Your task to perform on an android device: turn off smart reply in the gmail app Image 0: 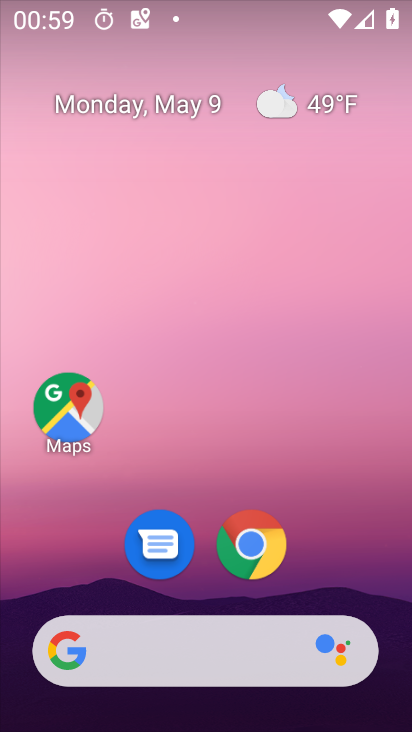
Step 0: drag from (292, 587) to (283, 30)
Your task to perform on an android device: turn off smart reply in the gmail app Image 1: 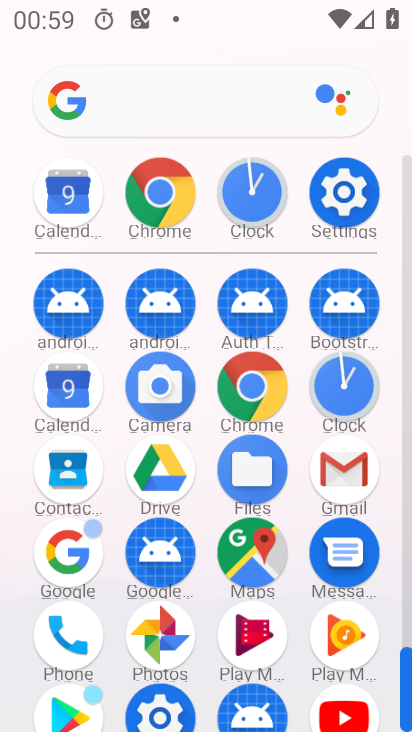
Step 1: click (344, 458)
Your task to perform on an android device: turn off smart reply in the gmail app Image 2: 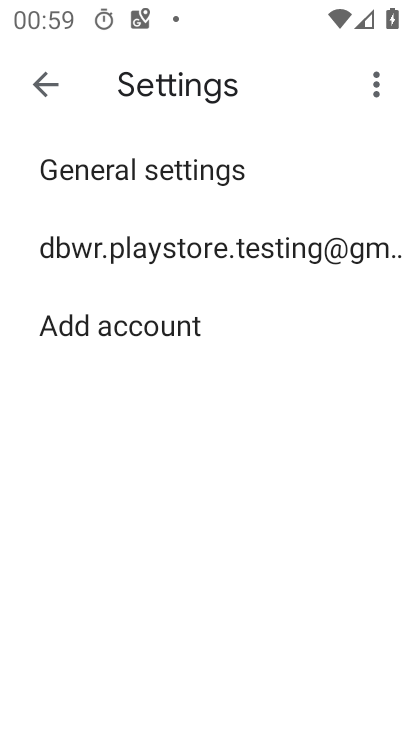
Step 2: click (241, 246)
Your task to perform on an android device: turn off smart reply in the gmail app Image 3: 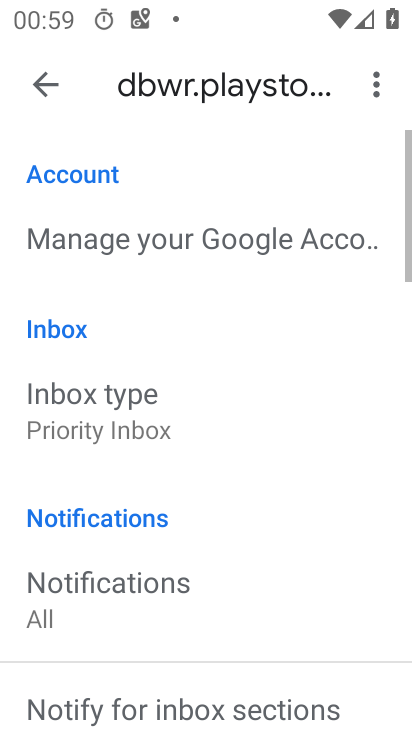
Step 3: drag from (246, 654) to (211, 136)
Your task to perform on an android device: turn off smart reply in the gmail app Image 4: 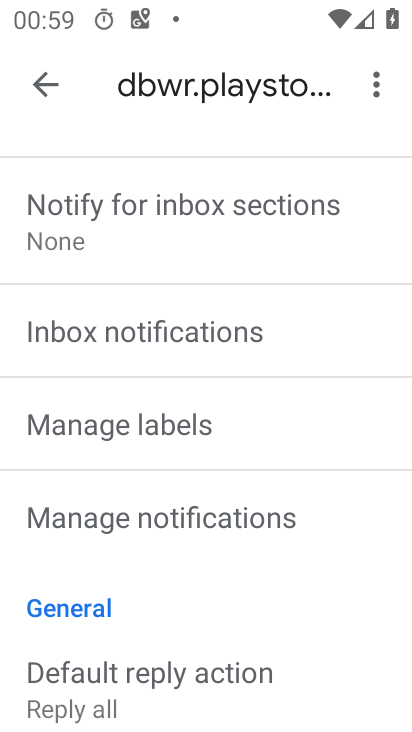
Step 4: drag from (218, 611) to (228, 9)
Your task to perform on an android device: turn off smart reply in the gmail app Image 5: 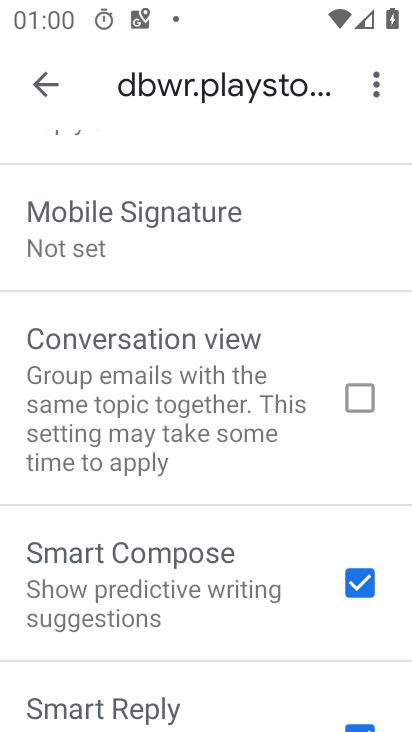
Step 5: drag from (291, 700) to (308, 408)
Your task to perform on an android device: turn off smart reply in the gmail app Image 6: 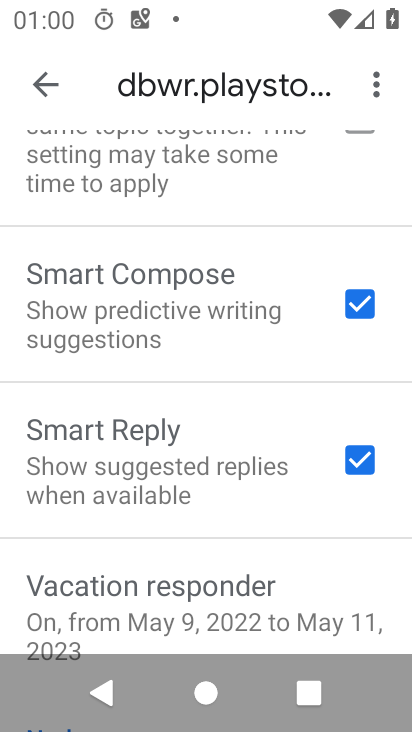
Step 6: click (356, 465)
Your task to perform on an android device: turn off smart reply in the gmail app Image 7: 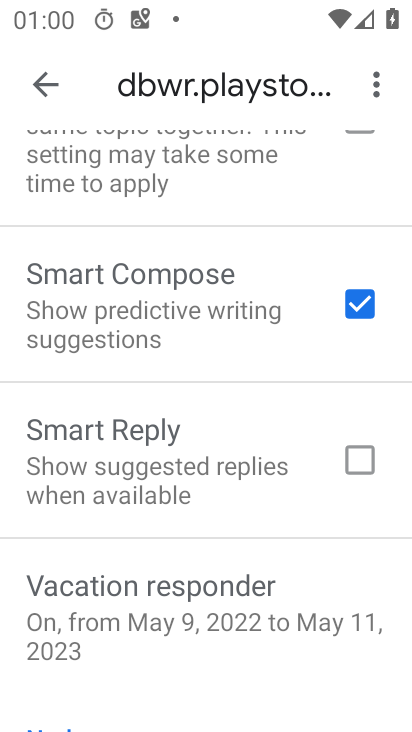
Step 7: task complete